Your task to perform on an android device: Search for vegetarian restaurants on Maps Image 0: 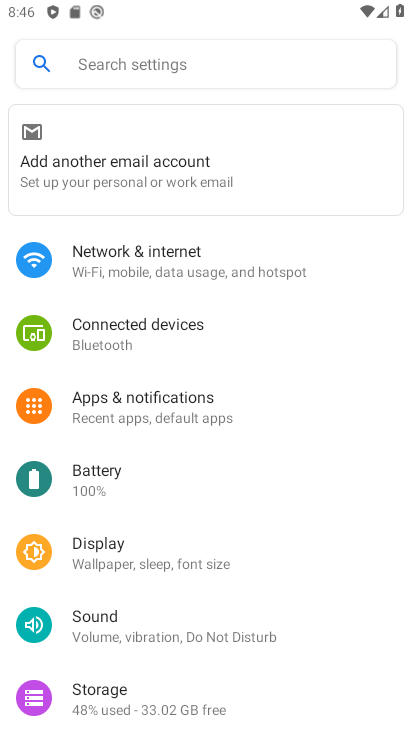
Step 0: press home button
Your task to perform on an android device: Search for vegetarian restaurants on Maps Image 1: 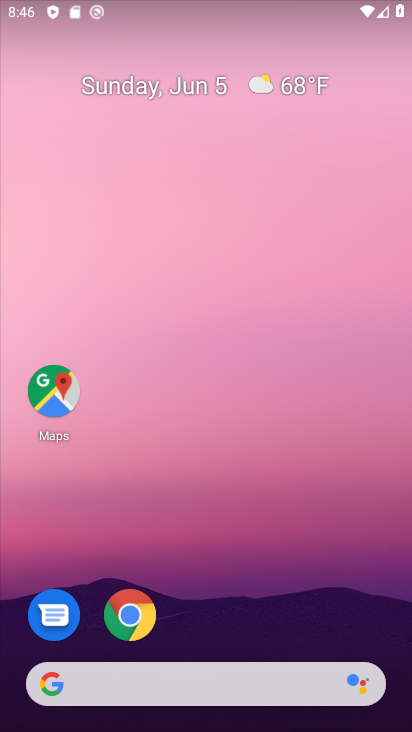
Step 1: click (54, 412)
Your task to perform on an android device: Search for vegetarian restaurants on Maps Image 2: 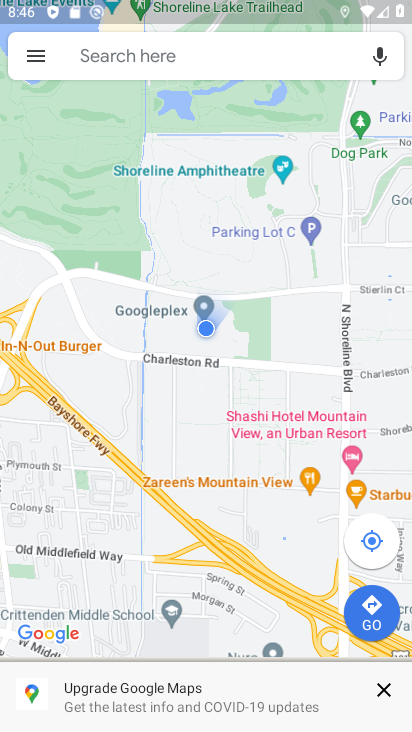
Step 2: click (211, 45)
Your task to perform on an android device: Search for vegetarian restaurants on Maps Image 3: 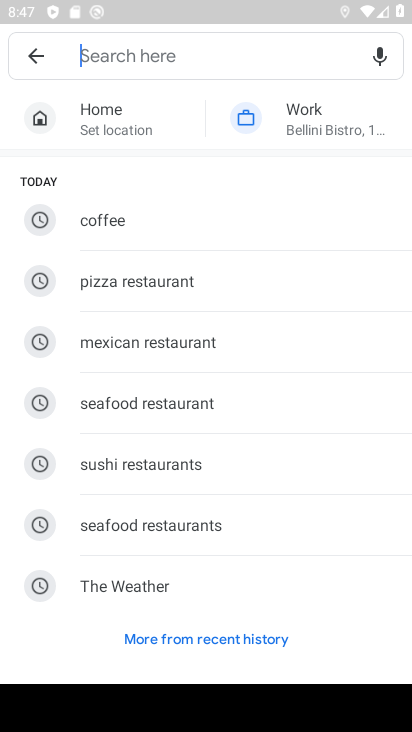
Step 3: type " vegetarian restaurants "
Your task to perform on an android device: Search for vegetarian restaurants on Maps Image 4: 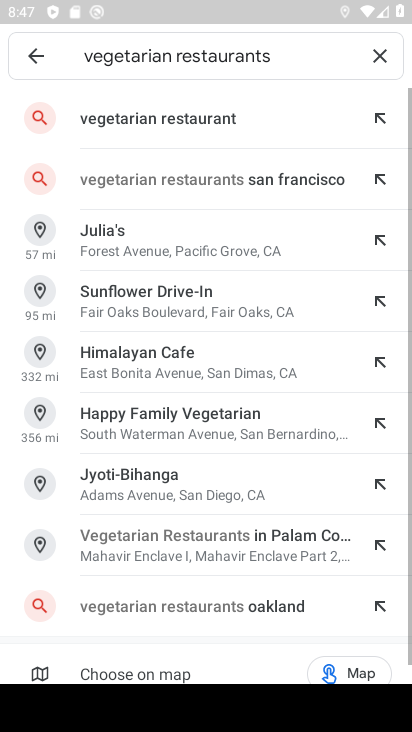
Step 4: click (174, 134)
Your task to perform on an android device: Search for vegetarian restaurants on Maps Image 5: 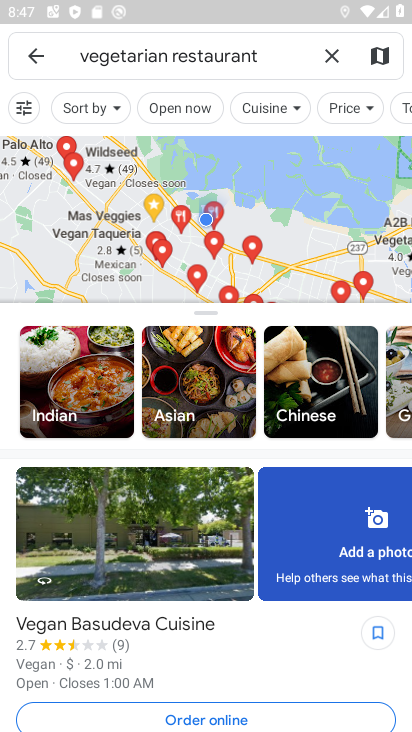
Step 5: task complete